Your task to perform on an android device: Open battery settings Image 0: 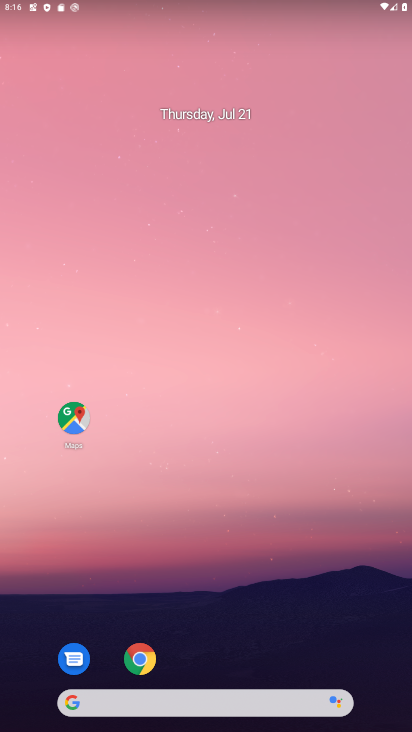
Step 0: drag from (218, 669) to (225, 155)
Your task to perform on an android device: Open battery settings Image 1: 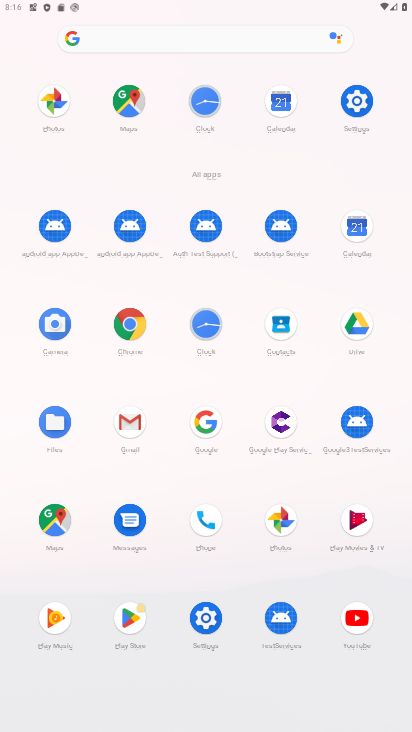
Step 1: click (355, 95)
Your task to perform on an android device: Open battery settings Image 2: 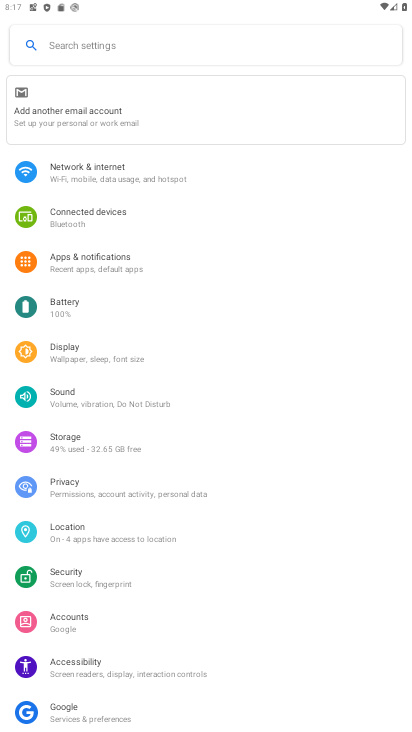
Step 2: click (91, 303)
Your task to perform on an android device: Open battery settings Image 3: 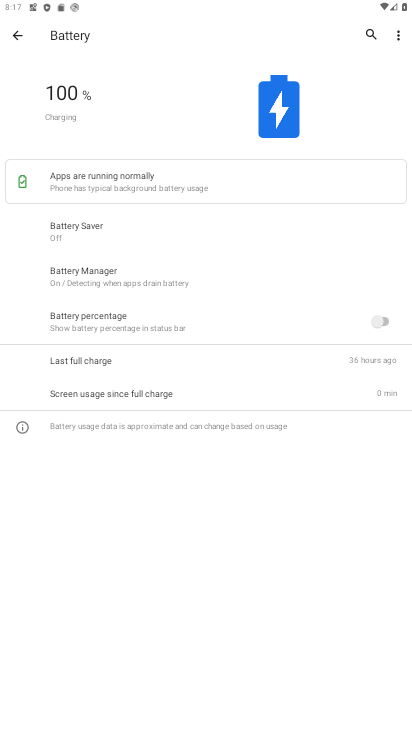
Step 3: task complete